Your task to perform on an android device: choose inbox layout in the gmail app Image 0: 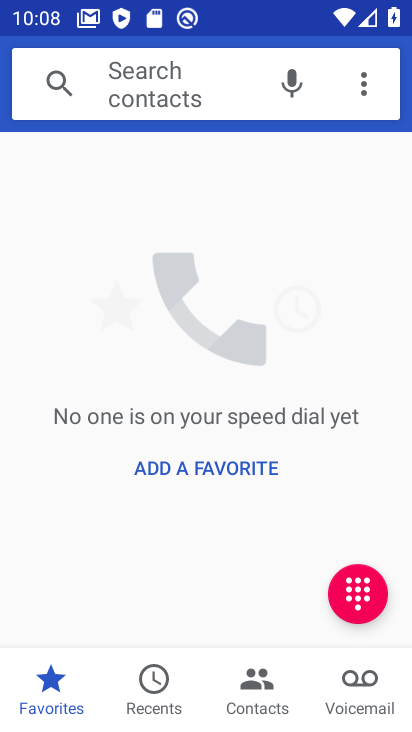
Step 0: press home button
Your task to perform on an android device: choose inbox layout in the gmail app Image 1: 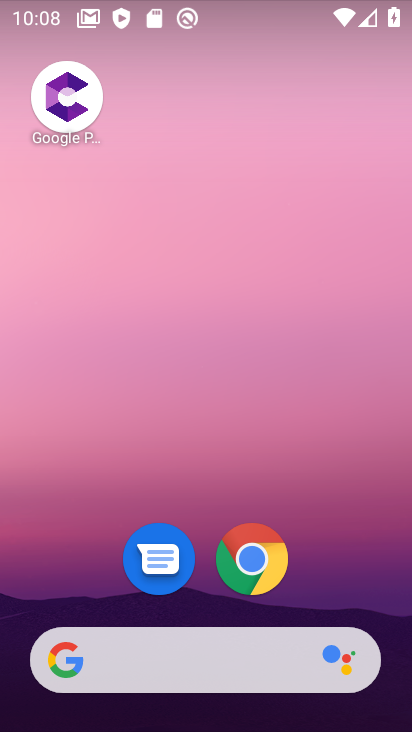
Step 1: drag from (351, 570) to (212, 79)
Your task to perform on an android device: choose inbox layout in the gmail app Image 2: 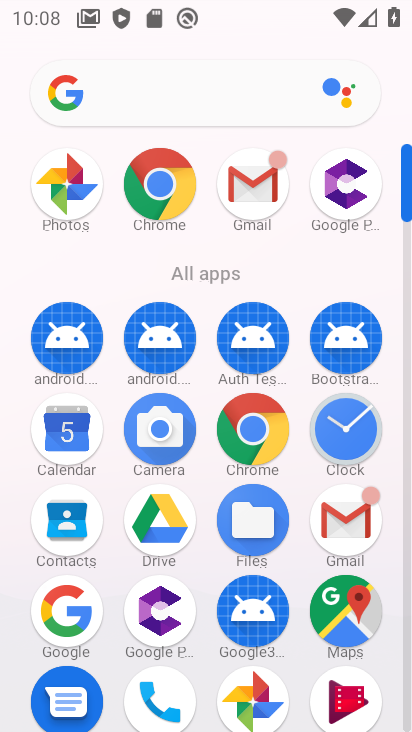
Step 2: click (261, 190)
Your task to perform on an android device: choose inbox layout in the gmail app Image 3: 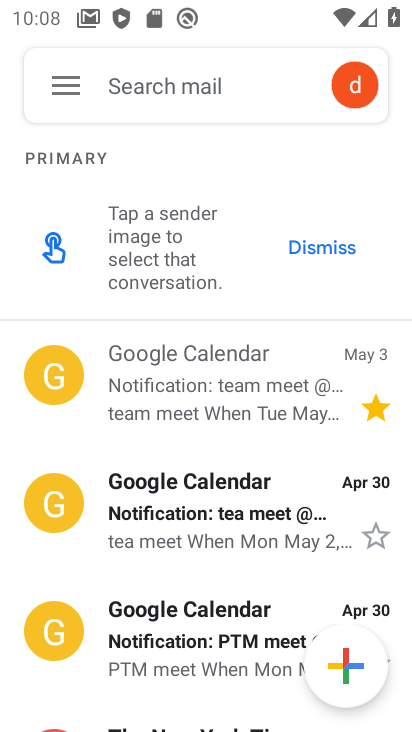
Step 3: click (70, 92)
Your task to perform on an android device: choose inbox layout in the gmail app Image 4: 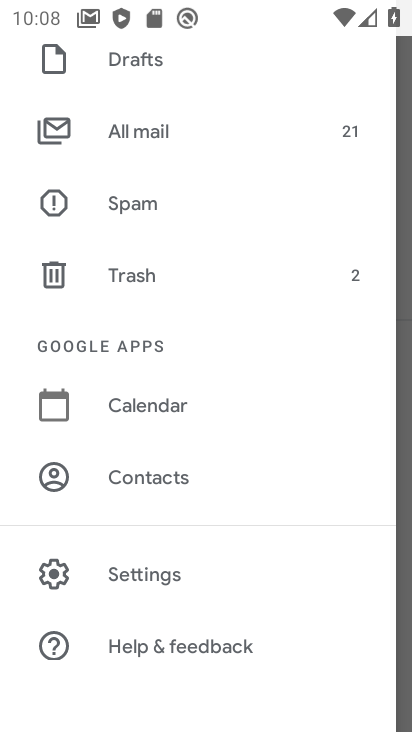
Step 4: click (210, 585)
Your task to perform on an android device: choose inbox layout in the gmail app Image 5: 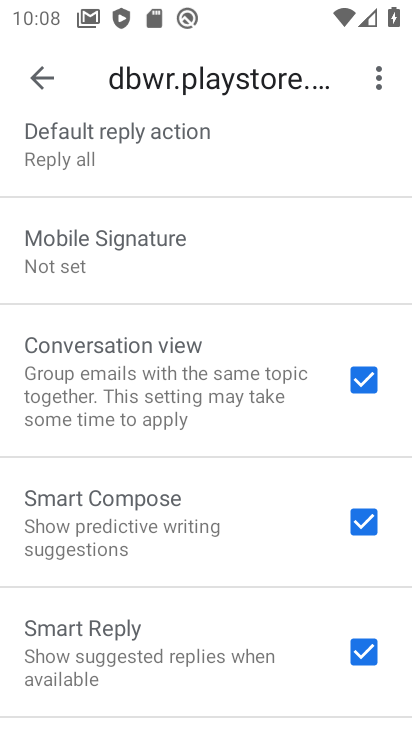
Step 5: drag from (209, 164) to (229, 689)
Your task to perform on an android device: choose inbox layout in the gmail app Image 6: 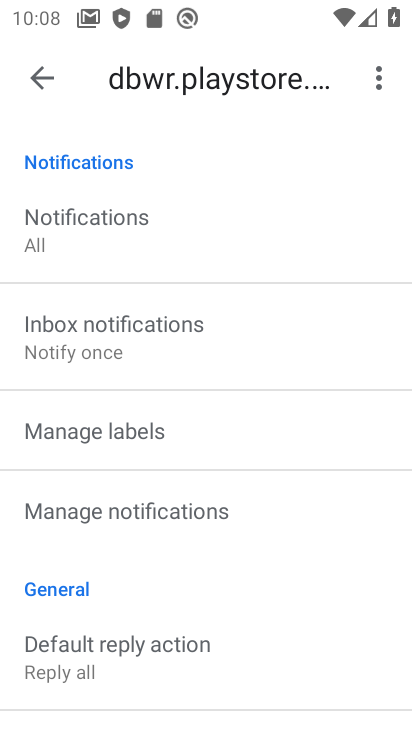
Step 6: drag from (155, 189) to (194, 704)
Your task to perform on an android device: choose inbox layout in the gmail app Image 7: 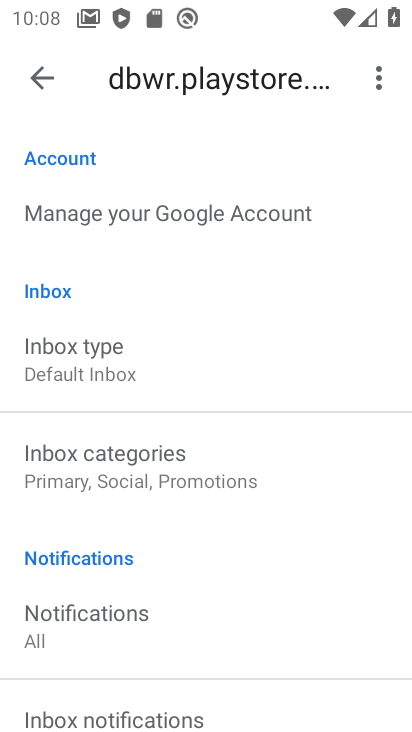
Step 7: click (208, 361)
Your task to perform on an android device: choose inbox layout in the gmail app Image 8: 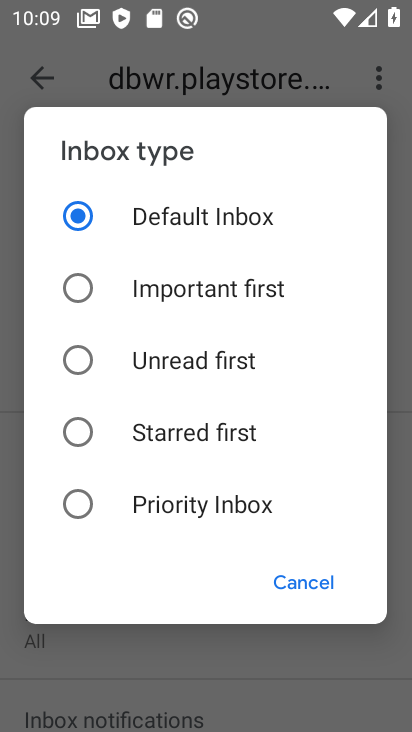
Step 8: click (184, 298)
Your task to perform on an android device: choose inbox layout in the gmail app Image 9: 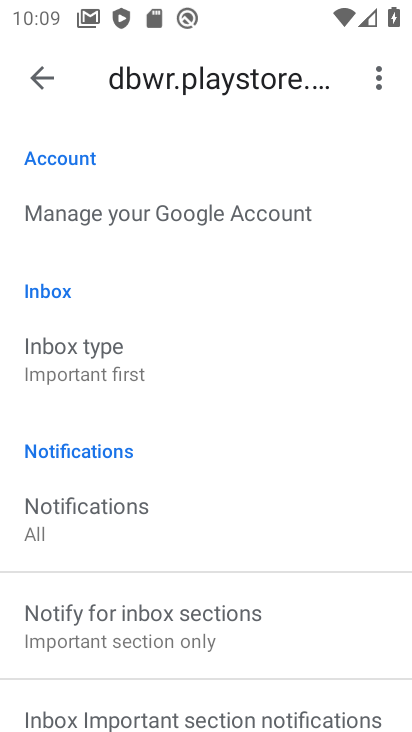
Step 9: task complete